Your task to perform on an android device: turn smart compose on in the gmail app Image 0: 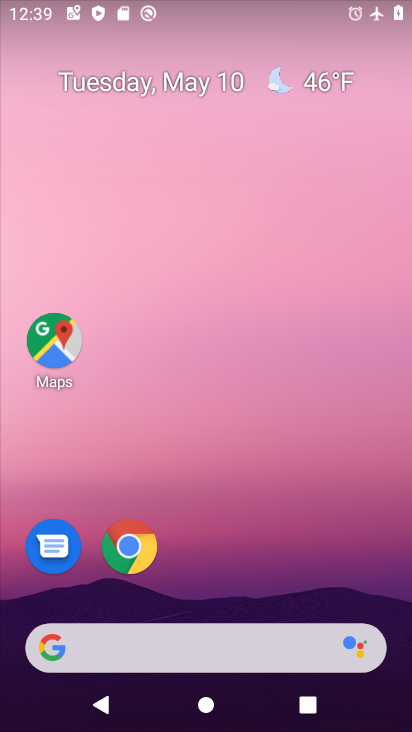
Step 0: drag from (331, 522) to (329, 17)
Your task to perform on an android device: turn smart compose on in the gmail app Image 1: 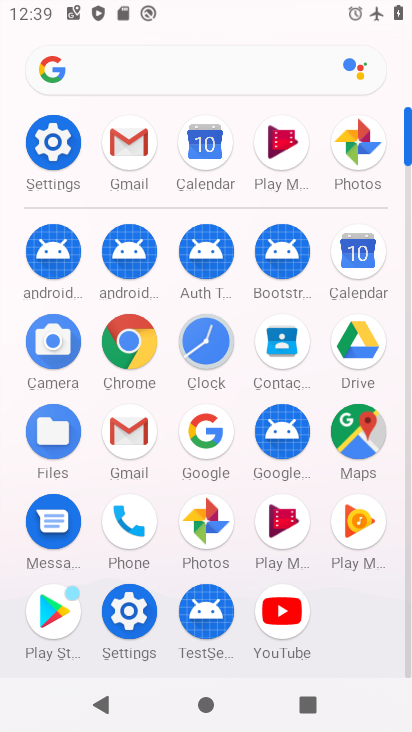
Step 1: click (122, 147)
Your task to perform on an android device: turn smart compose on in the gmail app Image 2: 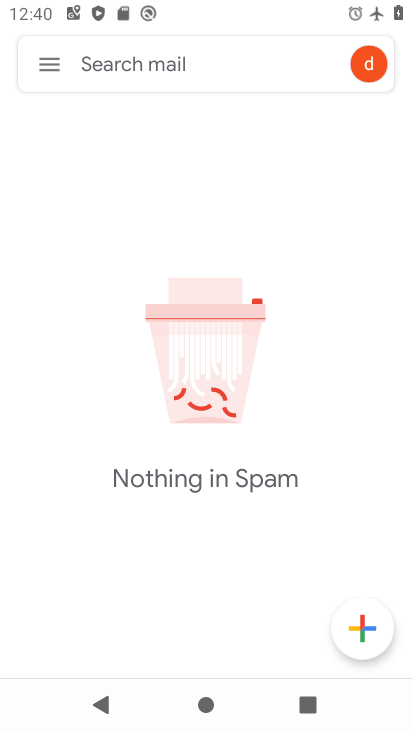
Step 2: click (39, 68)
Your task to perform on an android device: turn smart compose on in the gmail app Image 3: 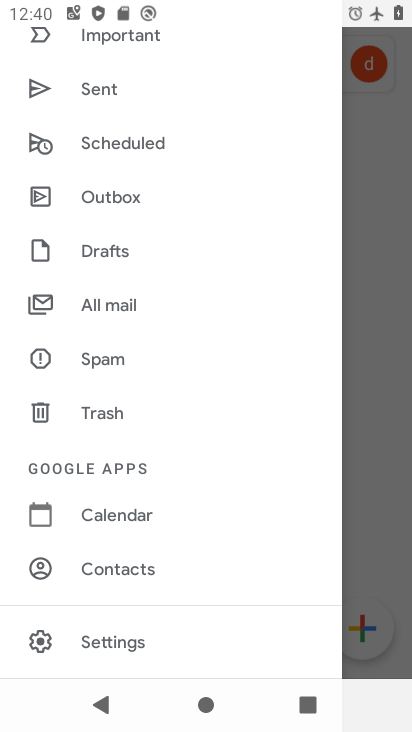
Step 3: click (120, 645)
Your task to perform on an android device: turn smart compose on in the gmail app Image 4: 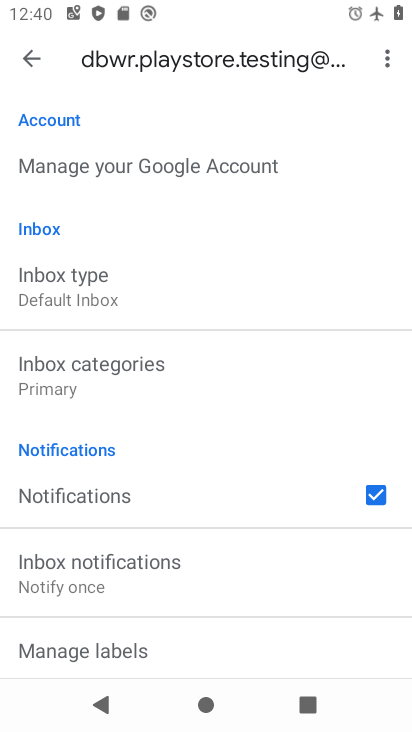
Step 4: task complete